Your task to perform on an android device: Show me popular videos on Youtube Image 0: 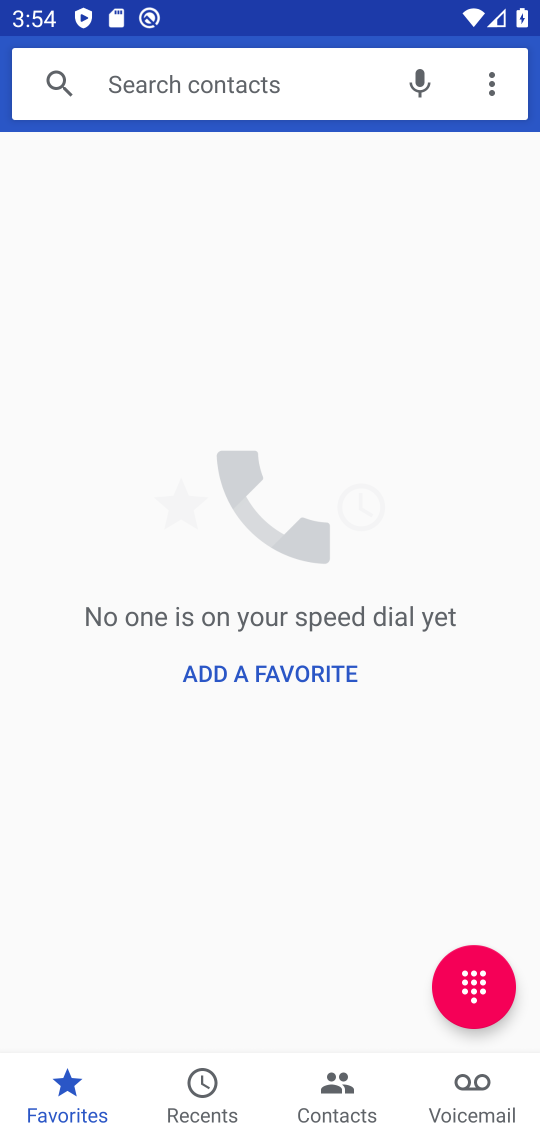
Step 0: press home button
Your task to perform on an android device: Show me popular videos on Youtube Image 1: 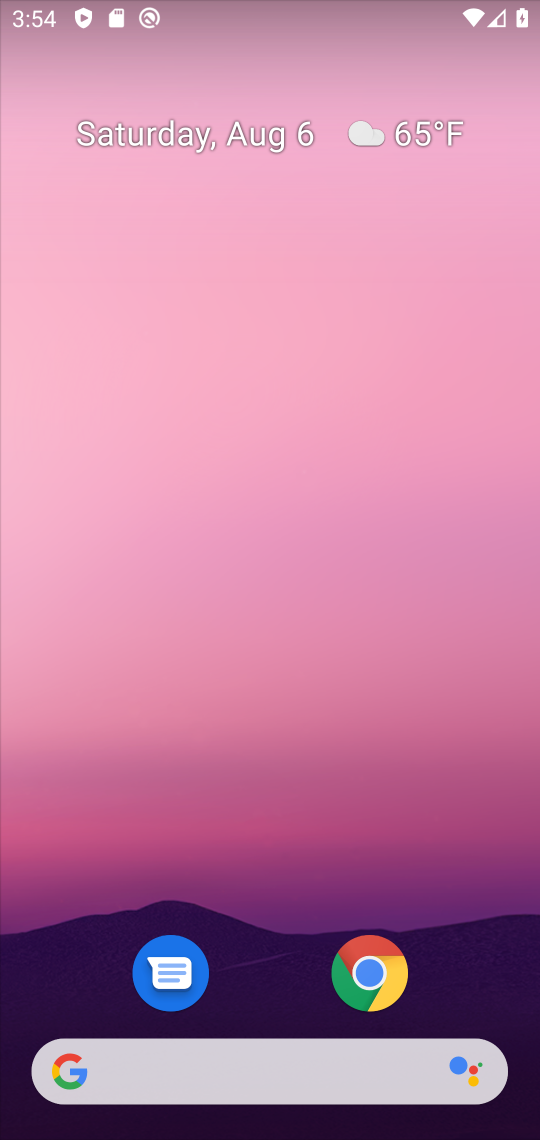
Step 1: drag from (276, 883) to (170, 55)
Your task to perform on an android device: Show me popular videos on Youtube Image 2: 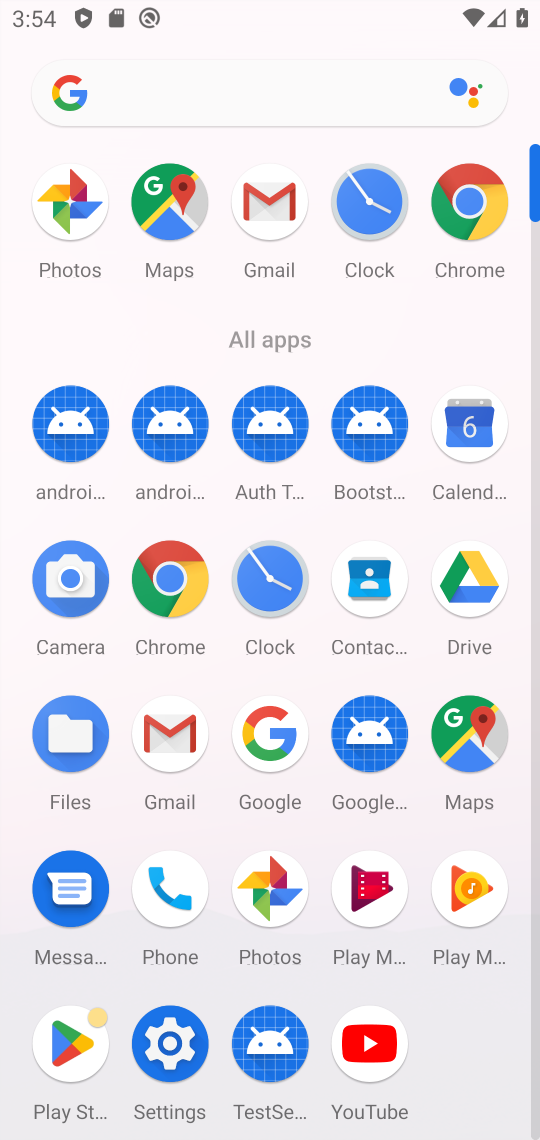
Step 2: click (353, 1054)
Your task to perform on an android device: Show me popular videos on Youtube Image 3: 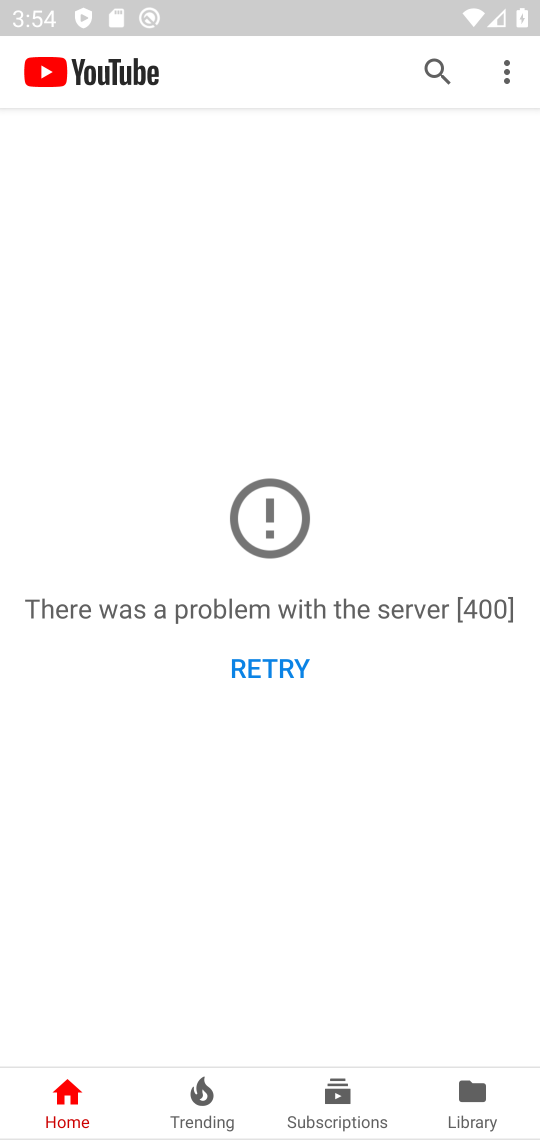
Step 3: task complete